Your task to perform on an android device: Open the web browser Image 0: 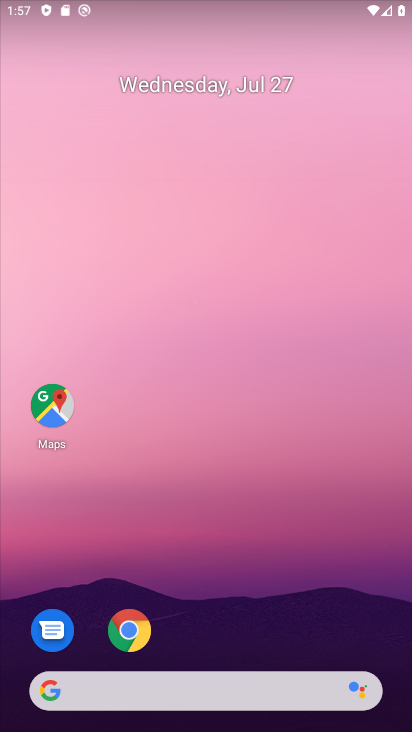
Step 0: click (173, 167)
Your task to perform on an android device: Open the web browser Image 1: 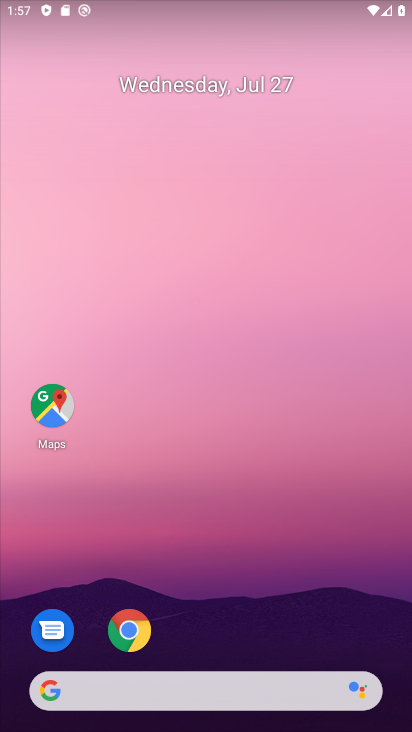
Step 1: drag from (174, 267) to (177, 102)
Your task to perform on an android device: Open the web browser Image 2: 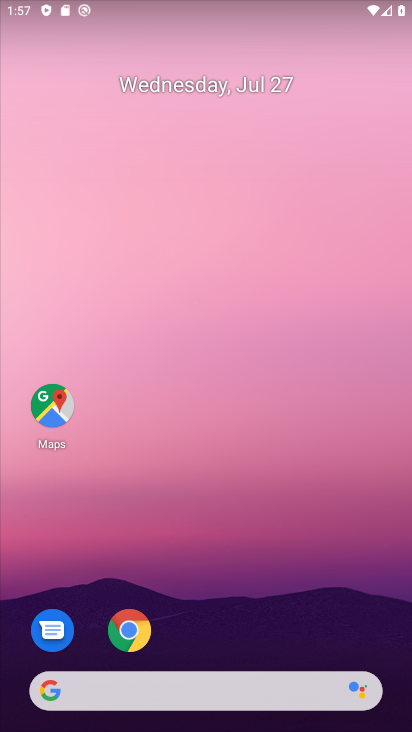
Step 2: drag from (165, 206) to (105, 115)
Your task to perform on an android device: Open the web browser Image 3: 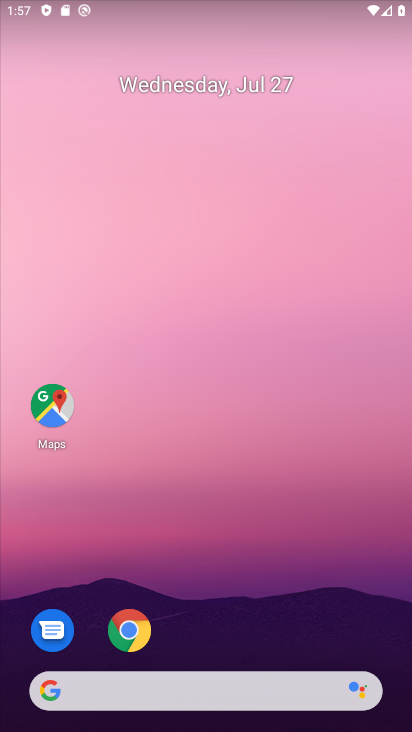
Step 3: click (191, 145)
Your task to perform on an android device: Open the web browser Image 4: 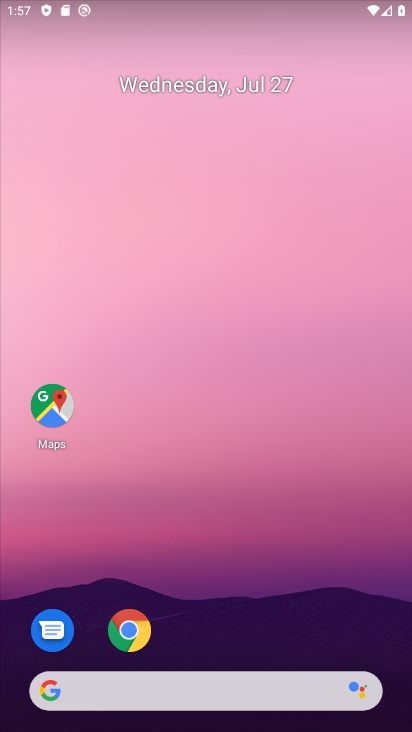
Step 4: drag from (191, 423) to (106, 20)
Your task to perform on an android device: Open the web browser Image 5: 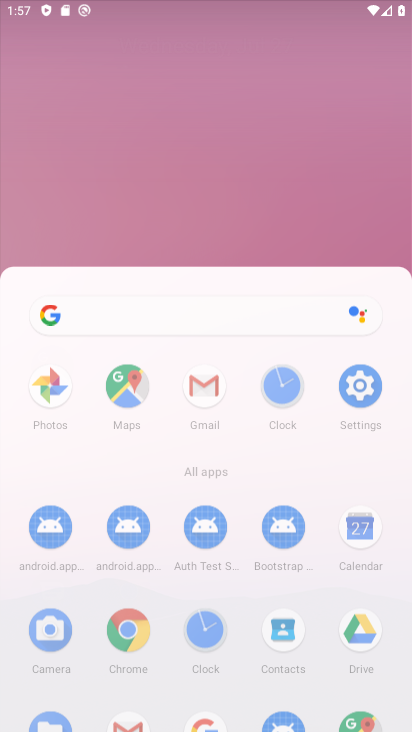
Step 5: drag from (255, 485) to (237, 18)
Your task to perform on an android device: Open the web browser Image 6: 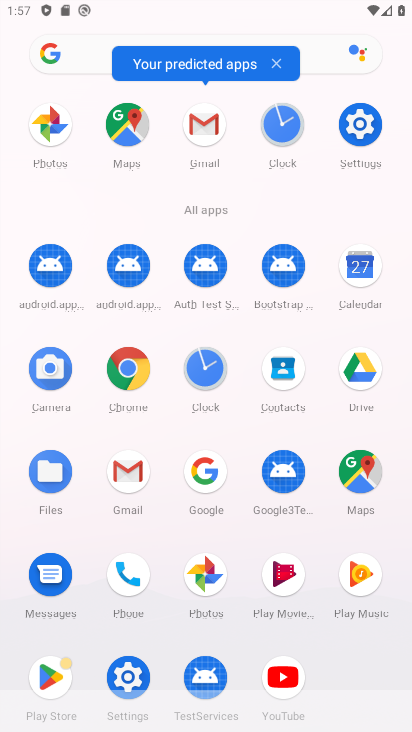
Step 6: click (134, 362)
Your task to perform on an android device: Open the web browser Image 7: 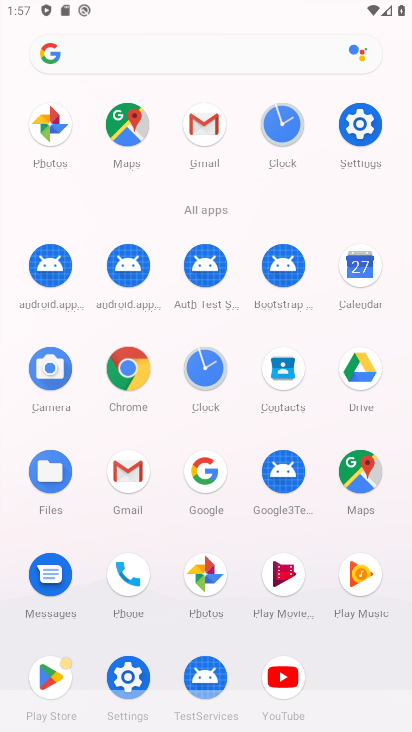
Step 7: click (129, 367)
Your task to perform on an android device: Open the web browser Image 8: 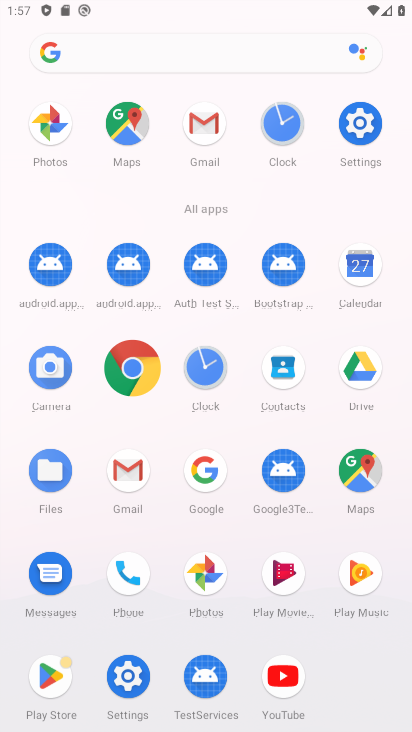
Step 8: click (111, 370)
Your task to perform on an android device: Open the web browser Image 9: 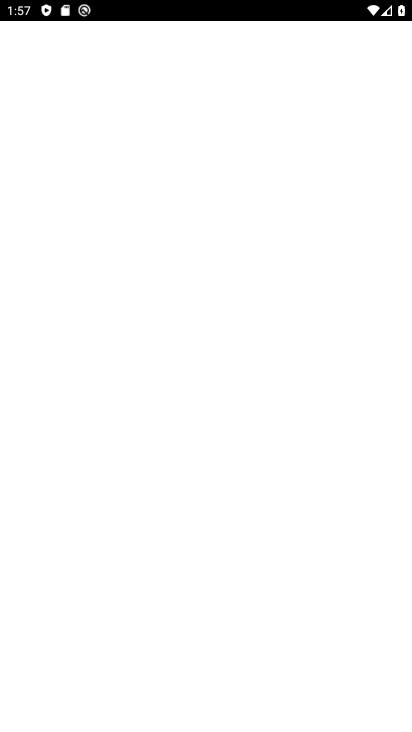
Step 9: click (109, 368)
Your task to perform on an android device: Open the web browser Image 10: 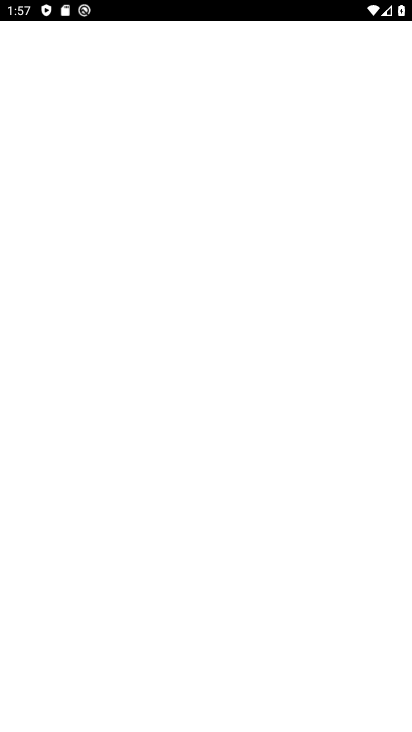
Step 10: click (122, 379)
Your task to perform on an android device: Open the web browser Image 11: 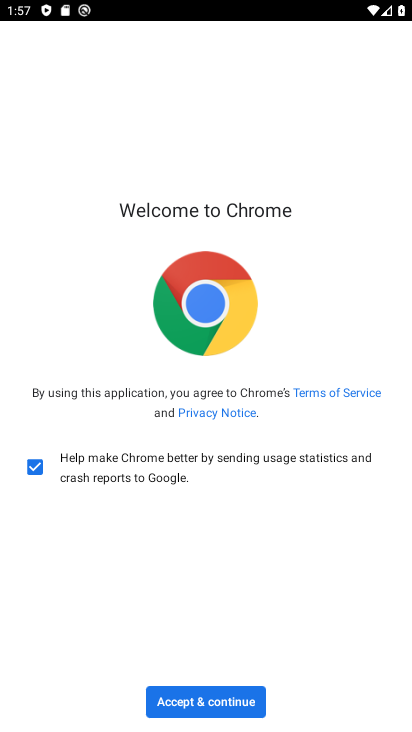
Step 11: click (235, 698)
Your task to perform on an android device: Open the web browser Image 12: 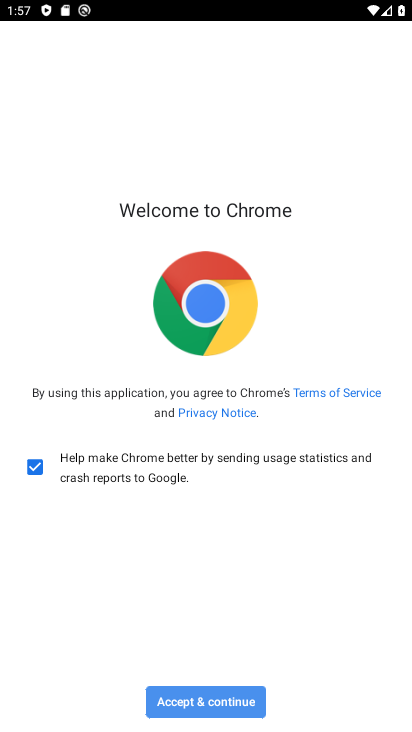
Step 12: click (235, 698)
Your task to perform on an android device: Open the web browser Image 13: 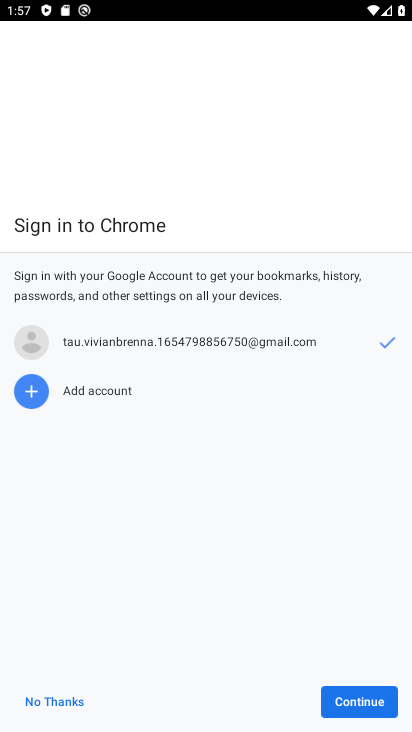
Step 13: click (235, 698)
Your task to perform on an android device: Open the web browser Image 14: 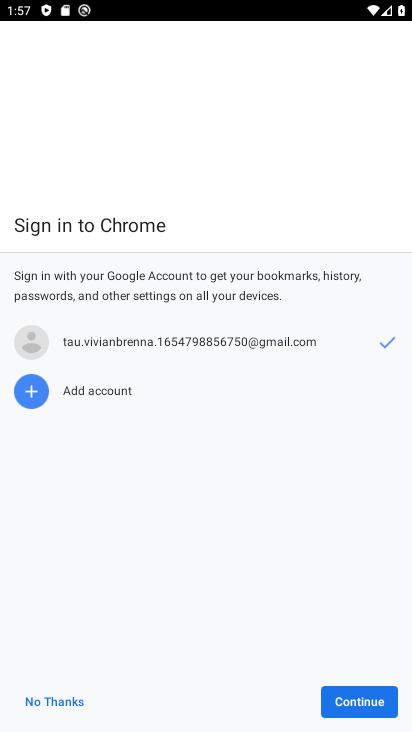
Step 14: click (58, 696)
Your task to perform on an android device: Open the web browser Image 15: 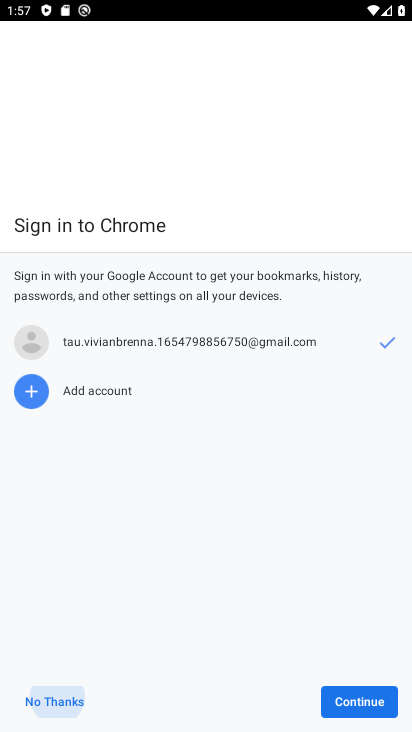
Step 15: click (56, 699)
Your task to perform on an android device: Open the web browser Image 16: 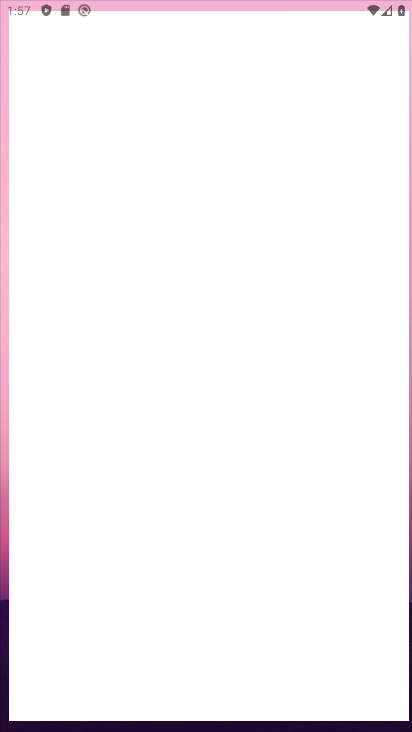
Step 16: click (44, 706)
Your task to perform on an android device: Open the web browser Image 17: 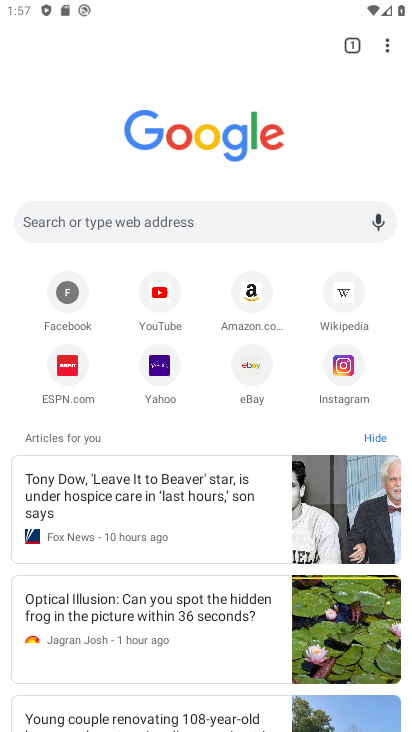
Step 17: task complete